Your task to perform on an android device: toggle pop-ups in chrome Image 0: 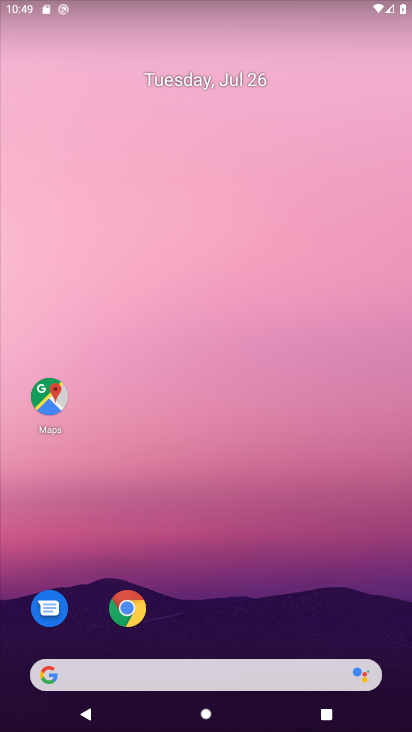
Step 0: drag from (263, 541) to (191, 28)
Your task to perform on an android device: toggle pop-ups in chrome Image 1: 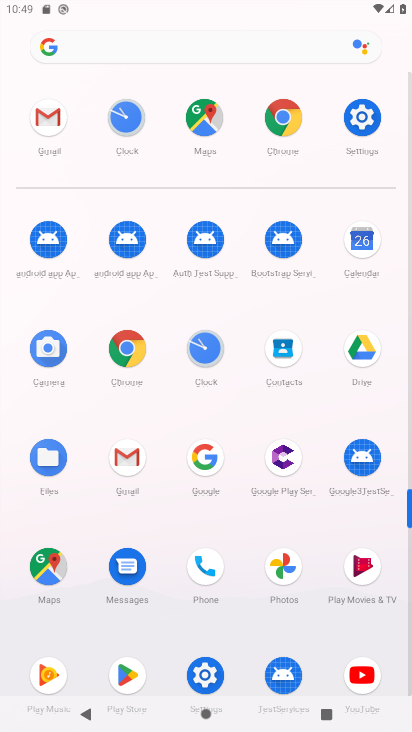
Step 1: click (289, 112)
Your task to perform on an android device: toggle pop-ups in chrome Image 2: 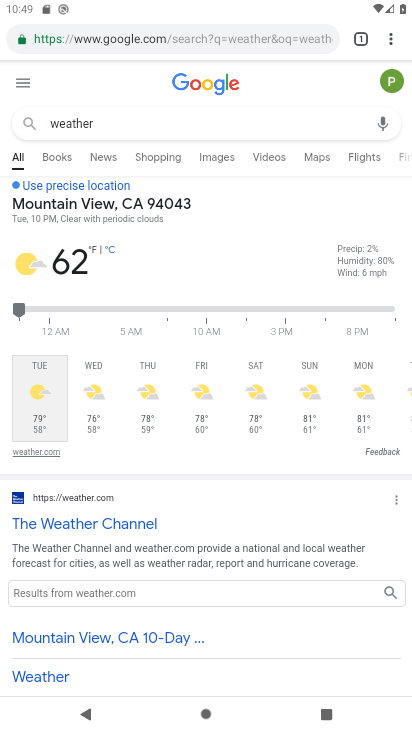
Step 2: drag from (391, 34) to (259, 428)
Your task to perform on an android device: toggle pop-ups in chrome Image 3: 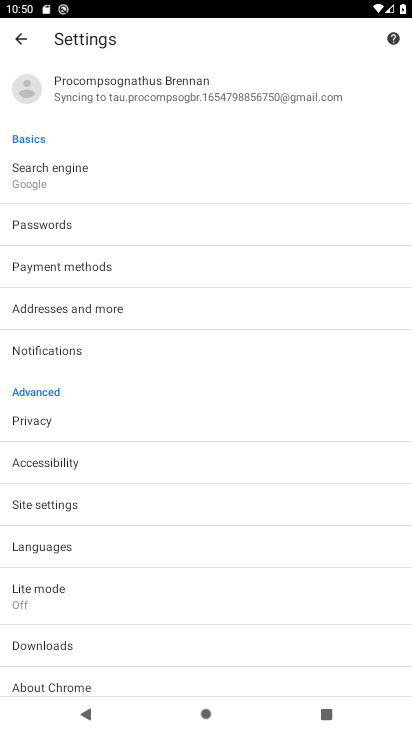
Step 3: click (68, 507)
Your task to perform on an android device: toggle pop-ups in chrome Image 4: 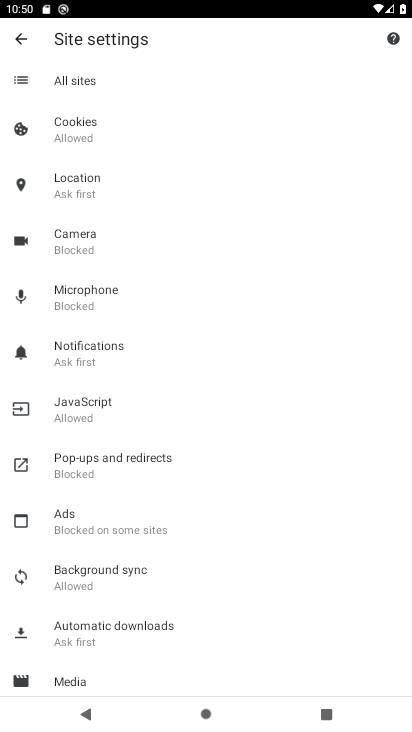
Step 4: click (111, 450)
Your task to perform on an android device: toggle pop-ups in chrome Image 5: 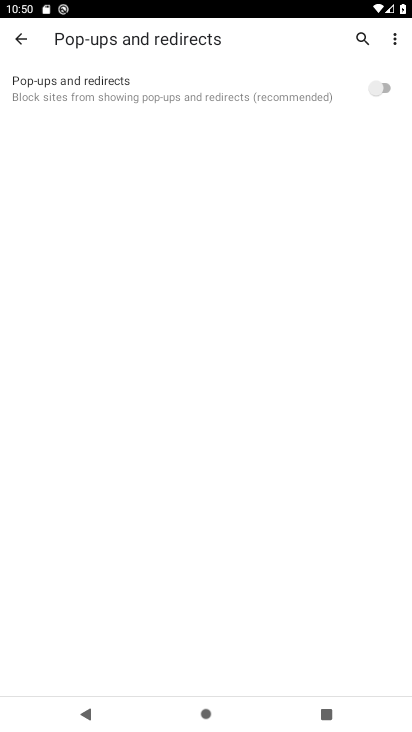
Step 5: click (386, 80)
Your task to perform on an android device: toggle pop-ups in chrome Image 6: 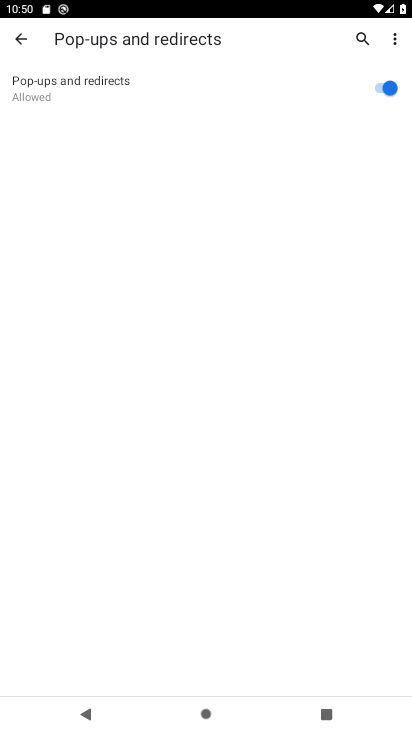
Step 6: task complete